Your task to perform on an android device: toggle priority inbox in the gmail app Image 0: 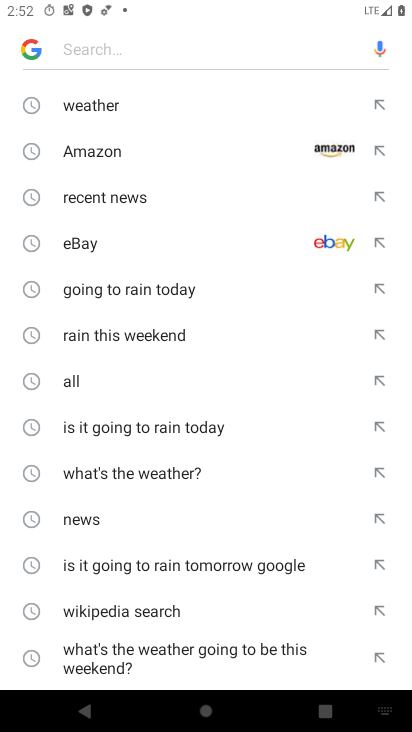
Step 0: press home button
Your task to perform on an android device: toggle priority inbox in the gmail app Image 1: 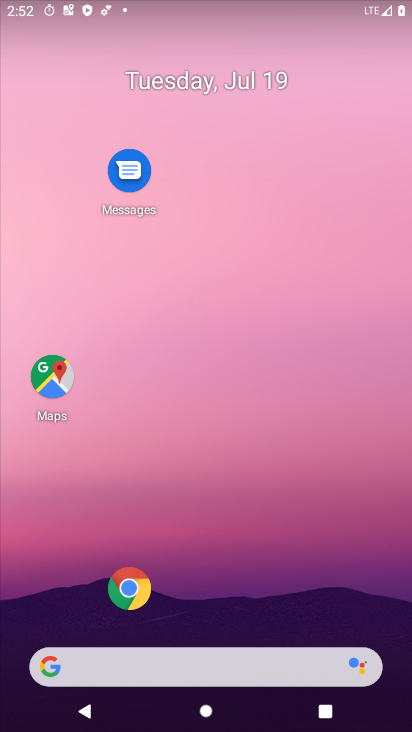
Step 1: drag from (26, 706) to (128, 241)
Your task to perform on an android device: toggle priority inbox in the gmail app Image 2: 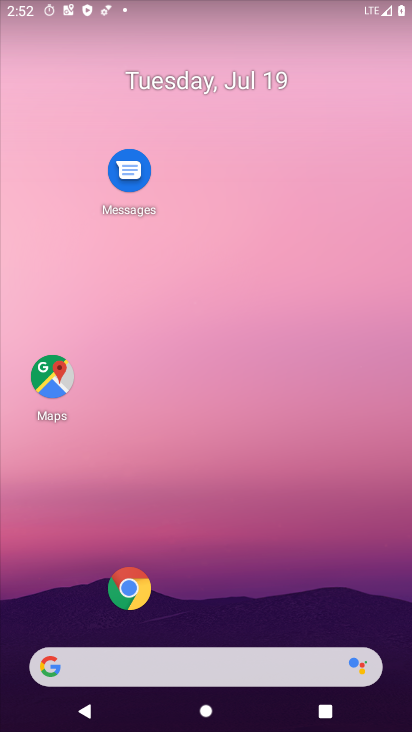
Step 2: drag from (89, 520) to (179, 5)
Your task to perform on an android device: toggle priority inbox in the gmail app Image 3: 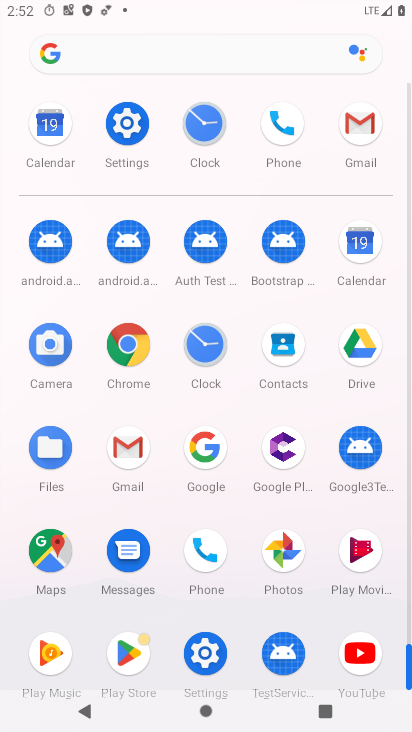
Step 3: click (148, 457)
Your task to perform on an android device: toggle priority inbox in the gmail app Image 4: 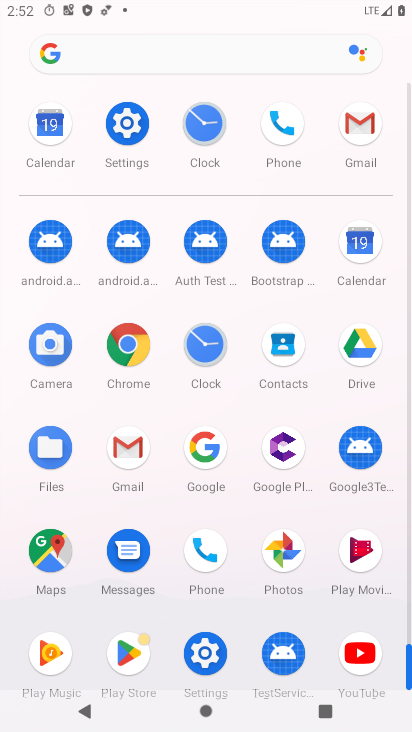
Step 4: click (141, 456)
Your task to perform on an android device: toggle priority inbox in the gmail app Image 5: 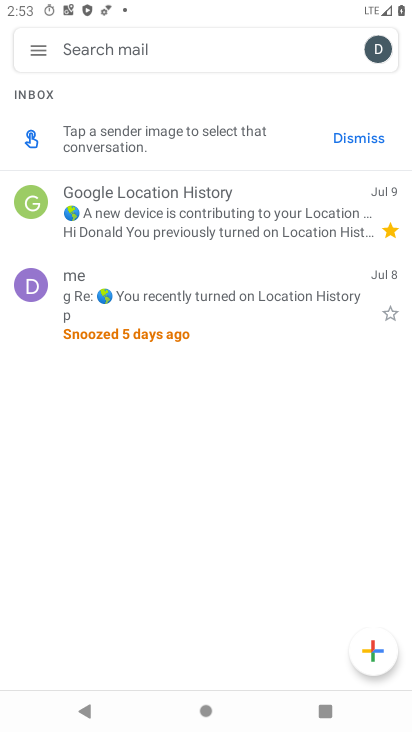
Step 5: click (34, 55)
Your task to perform on an android device: toggle priority inbox in the gmail app Image 6: 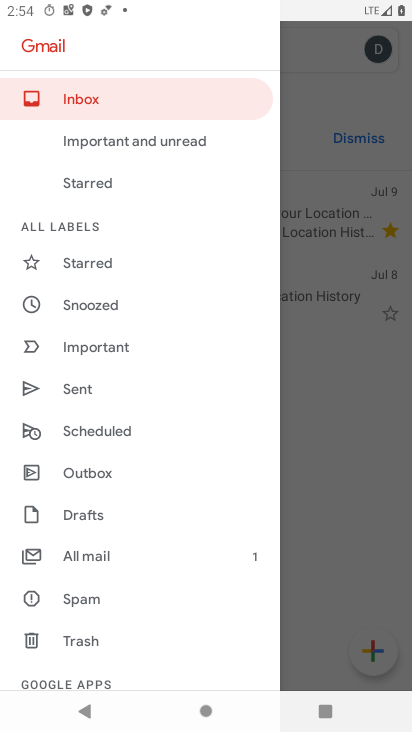
Step 6: drag from (119, 627) to (187, 20)
Your task to perform on an android device: toggle priority inbox in the gmail app Image 7: 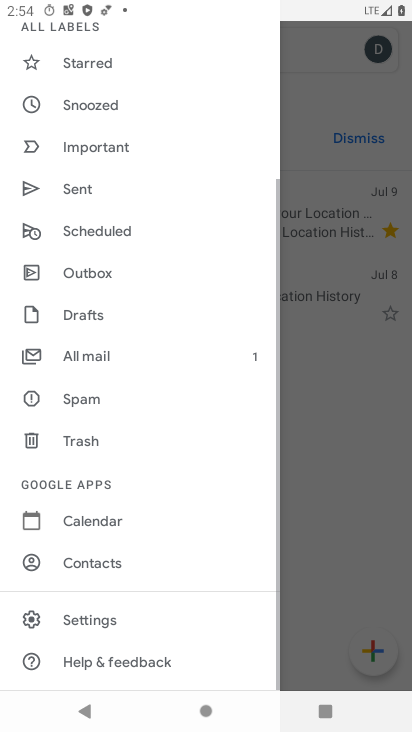
Step 7: click (112, 615)
Your task to perform on an android device: toggle priority inbox in the gmail app Image 8: 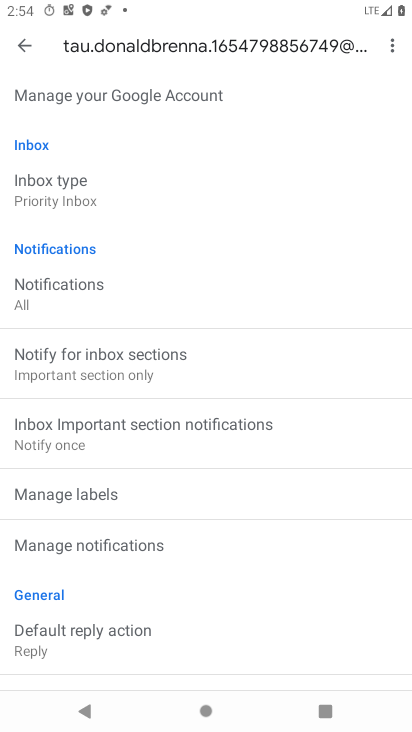
Step 8: task complete